Your task to perform on an android device: change the clock display to analog Image 0: 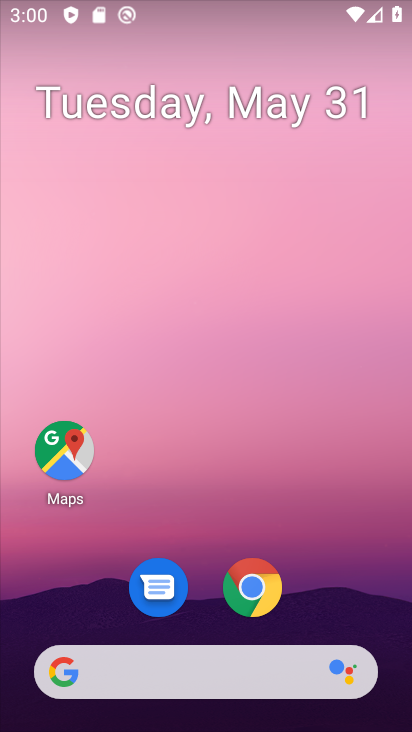
Step 0: drag from (320, 551) to (314, 126)
Your task to perform on an android device: change the clock display to analog Image 1: 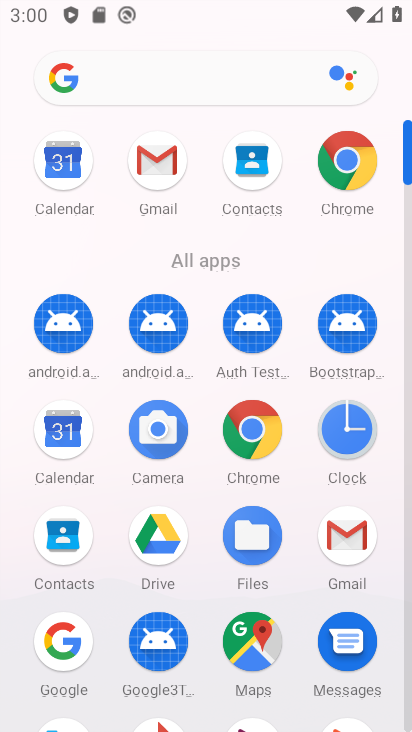
Step 1: click (345, 428)
Your task to perform on an android device: change the clock display to analog Image 2: 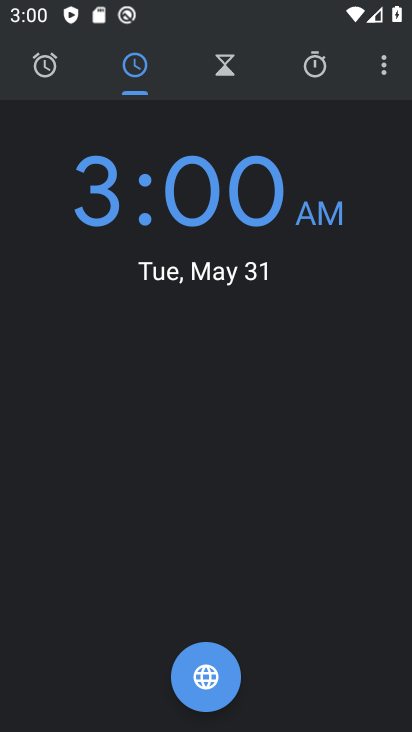
Step 2: click (371, 64)
Your task to perform on an android device: change the clock display to analog Image 3: 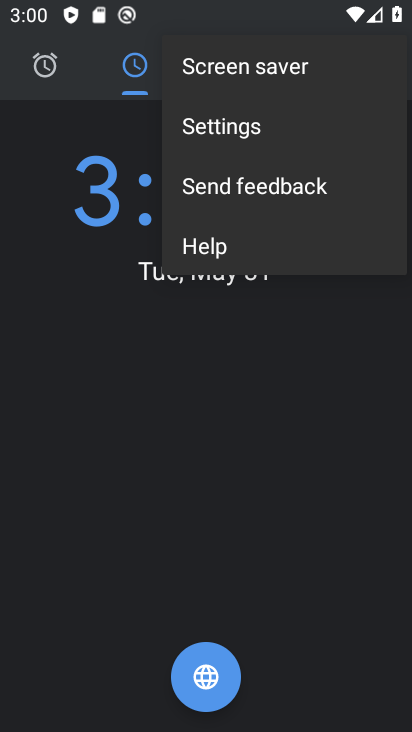
Step 3: click (260, 142)
Your task to perform on an android device: change the clock display to analog Image 4: 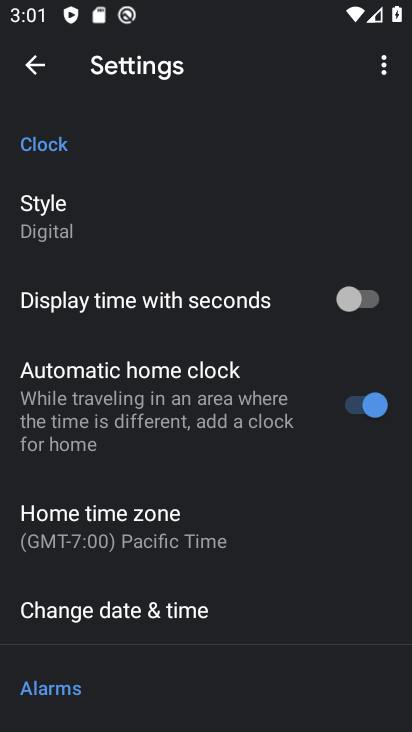
Step 4: click (56, 195)
Your task to perform on an android device: change the clock display to analog Image 5: 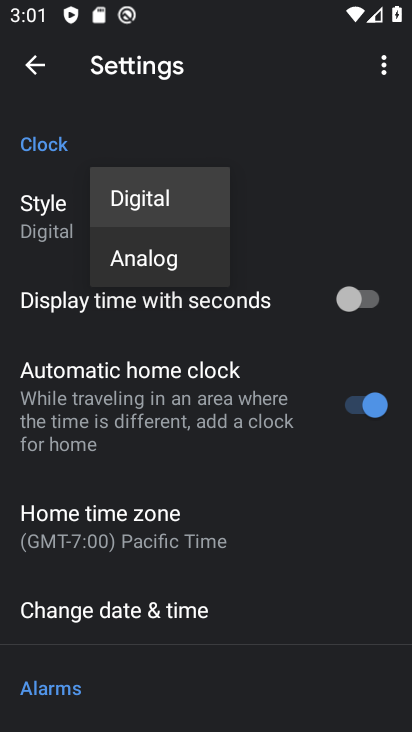
Step 5: click (168, 244)
Your task to perform on an android device: change the clock display to analog Image 6: 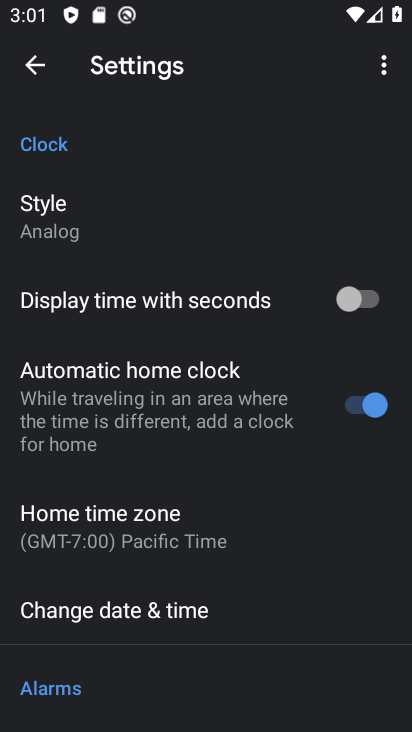
Step 6: task complete